Your task to perform on an android device: turn pop-ups on in chrome Image 0: 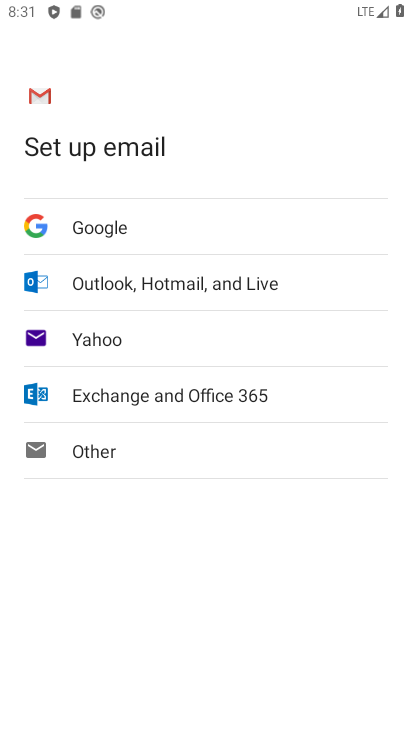
Step 0: press back button
Your task to perform on an android device: turn pop-ups on in chrome Image 1: 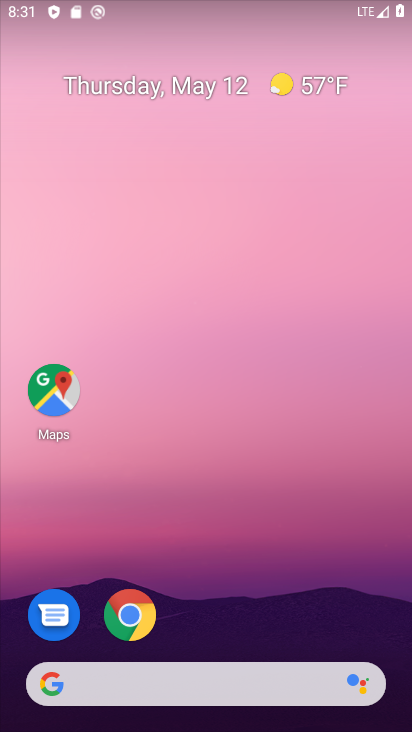
Step 1: drag from (274, 586) to (240, 17)
Your task to perform on an android device: turn pop-ups on in chrome Image 2: 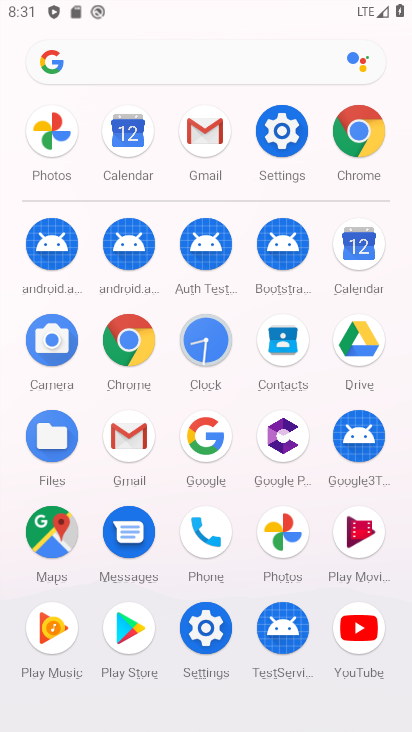
Step 2: drag from (2, 572) to (8, 312)
Your task to perform on an android device: turn pop-ups on in chrome Image 3: 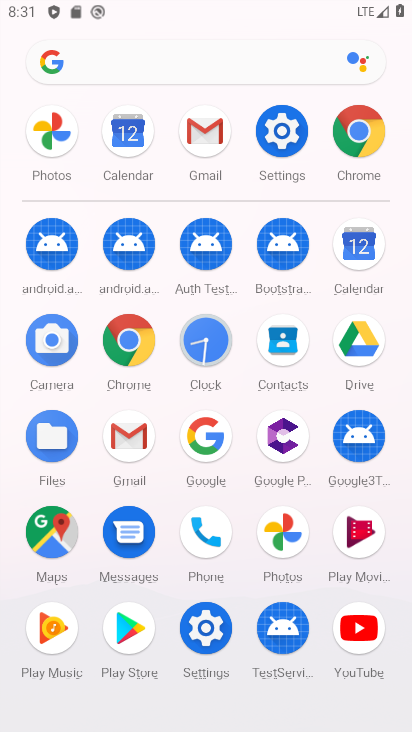
Step 3: click (128, 337)
Your task to perform on an android device: turn pop-ups on in chrome Image 4: 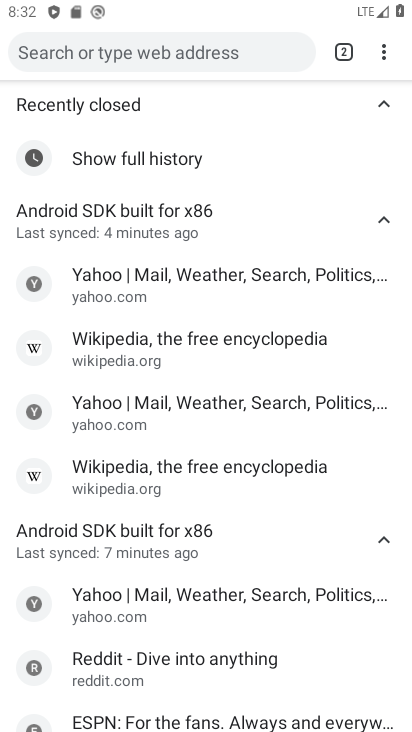
Step 4: drag from (388, 51) to (206, 440)
Your task to perform on an android device: turn pop-ups on in chrome Image 5: 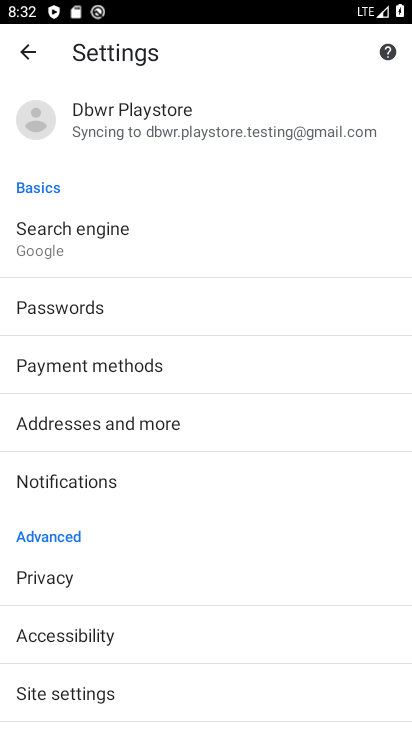
Step 5: drag from (197, 541) to (241, 246)
Your task to perform on an android device: turn pop-ups on in chrome Image 6: 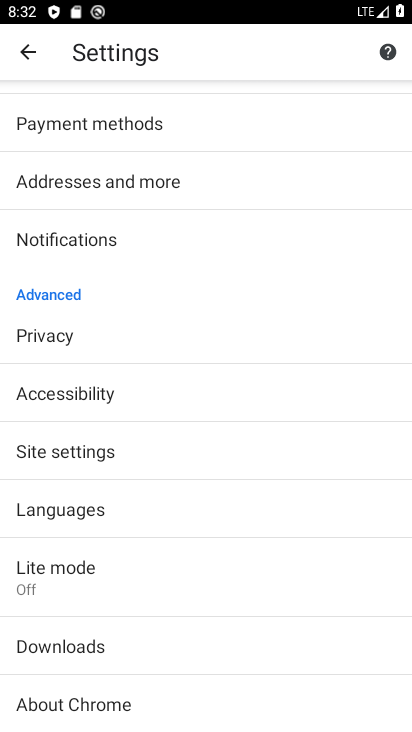
Step 6: click (118, 438)
Your task to perform on an android device: turn pop-ups on in chrome Image 7: 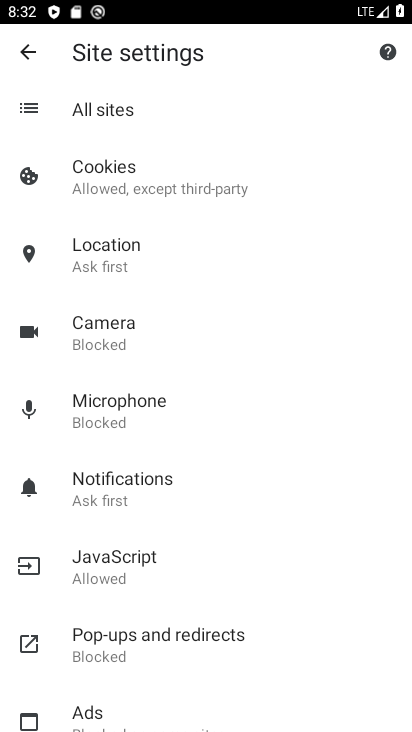
Step 7: click (159, 624)
Your task to perform on an android device: turn pop-ups on in chrome Image 8: 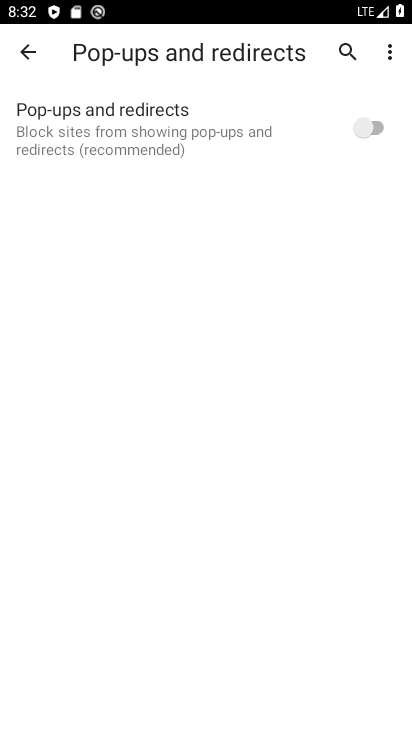
Step 8: click (372, 119)
Your task to perform on an android device: turn pop-ups on in chrome Image 9: 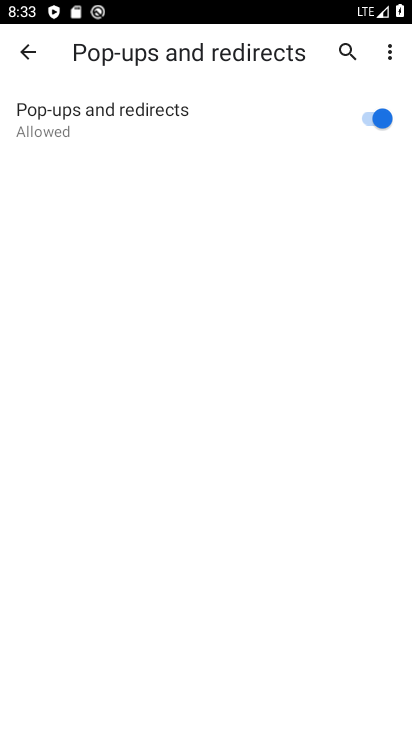
Step 9: task complete